Your task to perform on an android device: Open the Play Movies app and select the watchlist tab. Image 0: 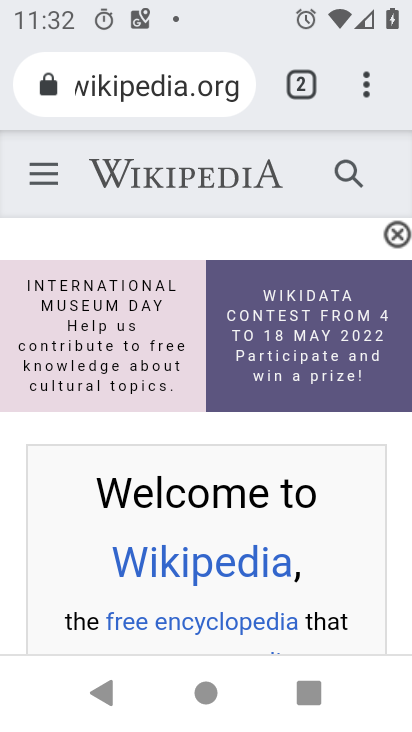
Step 0: press home button
Your task to perform on an android device: Open the Play Movies app and select the watchlist tab. Image 1: 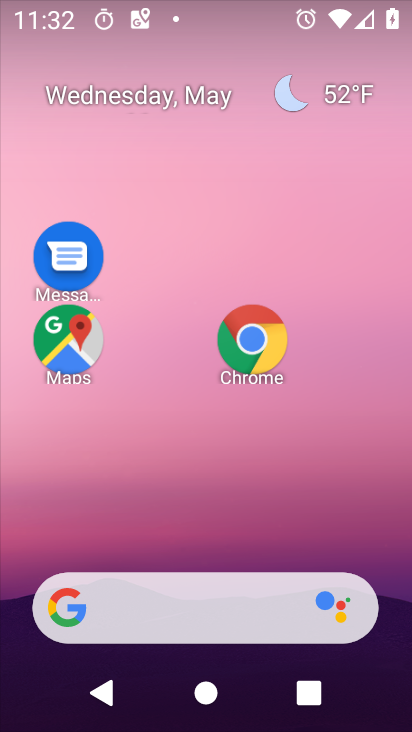
Step 1: drag from (207, 533) to (229, 110)
Your task to perform on an android device: Open the Play Movies app and select the watchlist tab. Image 2: 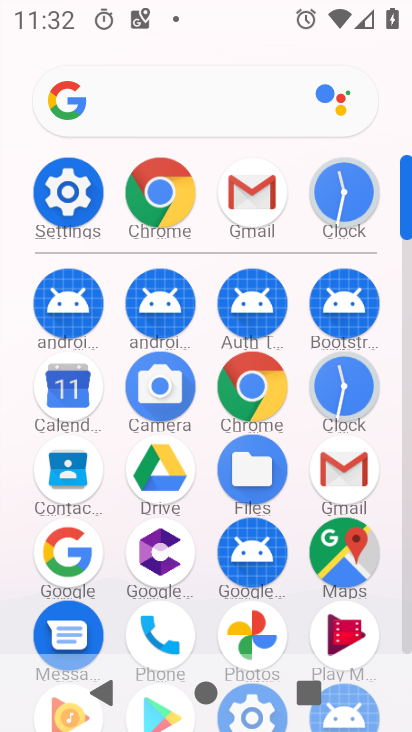
Step 2: click (344, 633)
Your task to perform on an android device: Open the Play Movies app and select the watchlist tab. Image 3: 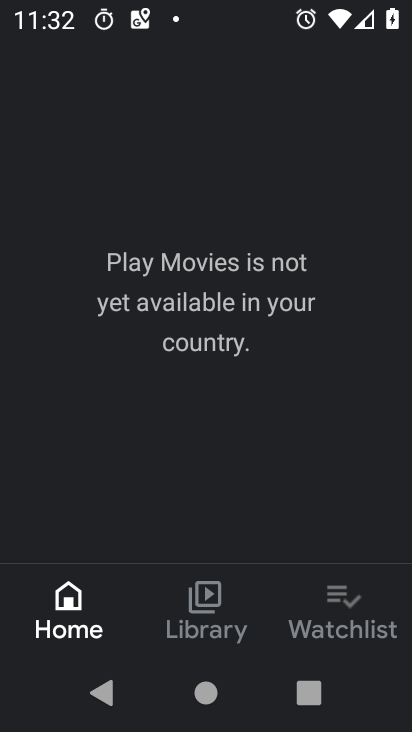
Step 3: click (327, 618)
Your task to perform on an android device: Open the Play Movies app and select the watchlist tab. Image 4: 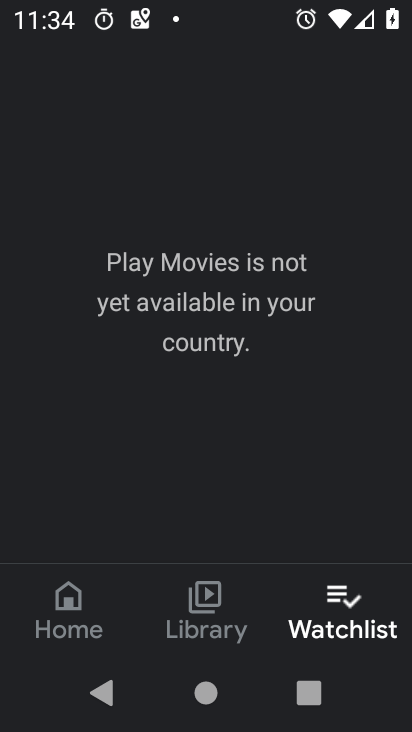
Step 4: task complete